Your task to perform on an android device: Is it going to rain tomorrow? Image 0: 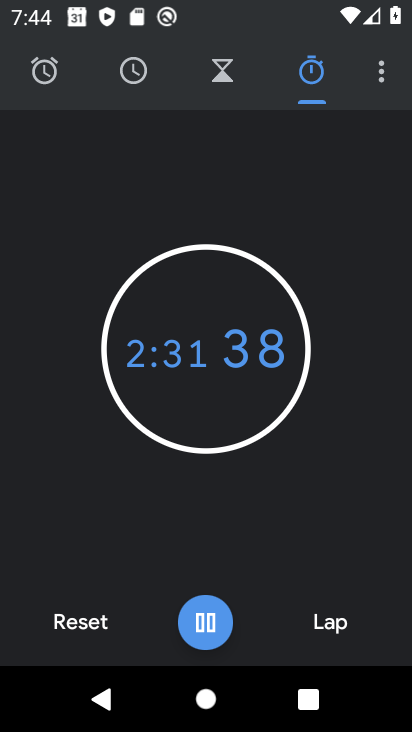
Step 0: press home button
Your task to perform on an android device: Is it going to rain tomorrow? Image 1: 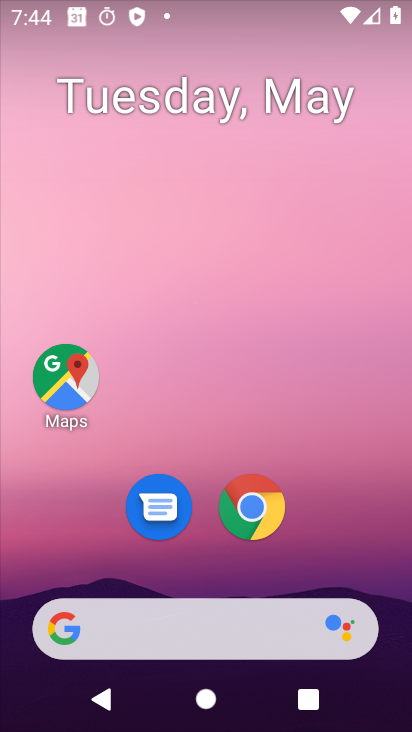
Step 1: click (259, 610)
Your task to perform on an android device: Is it going to rain tomorrow? Image 2: 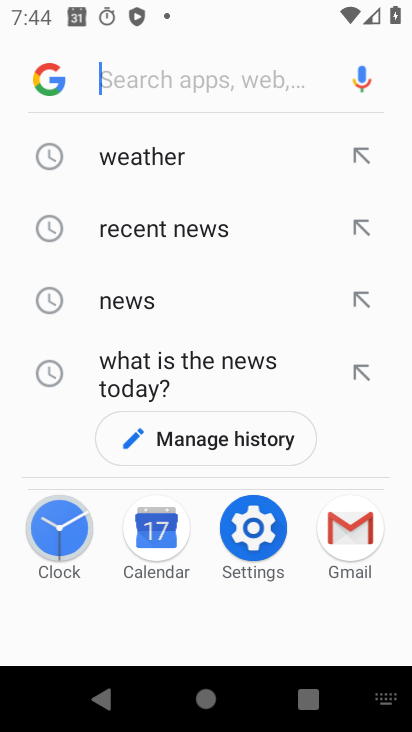
Step 2: type "is it going to rain tomorrow"
Your task to perform on an android device: Is it going to rain tomorrow? Image 3: 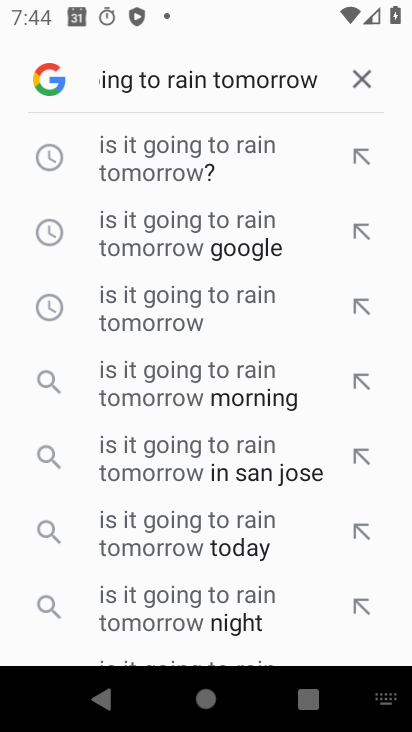
Step 3: click (226, 159)
Your task to perform on an android device: Is it going to rain tomorrow? Image 4: 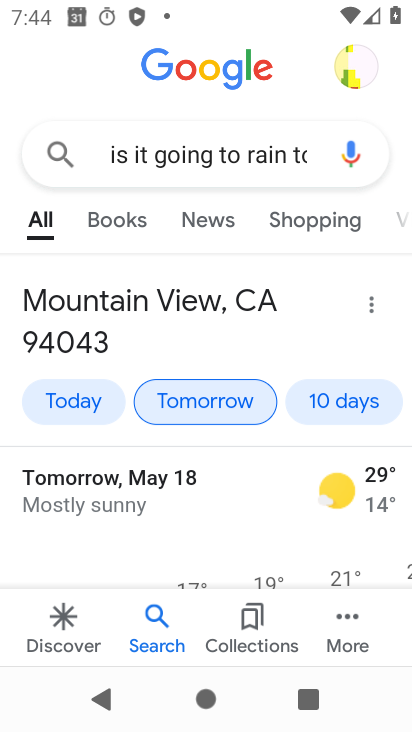
Step 4: task complete